Your task to perform on an android device: open the mobile data screen to see how much data has been used Image 0: 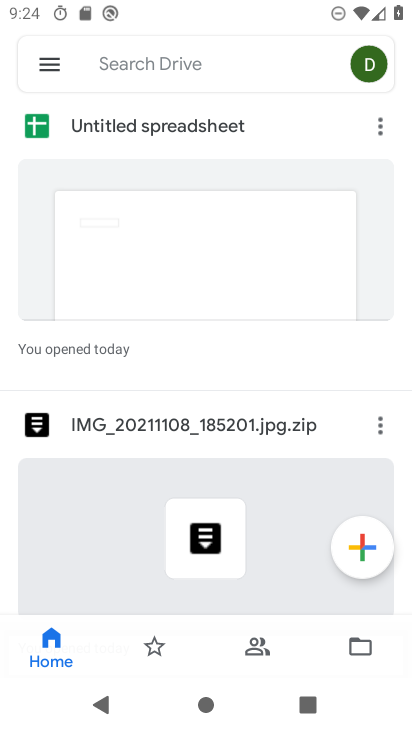
Step 0: press home button
Your task to perform on an android device: open the mobile data screen to see how much data has been used Image 1: 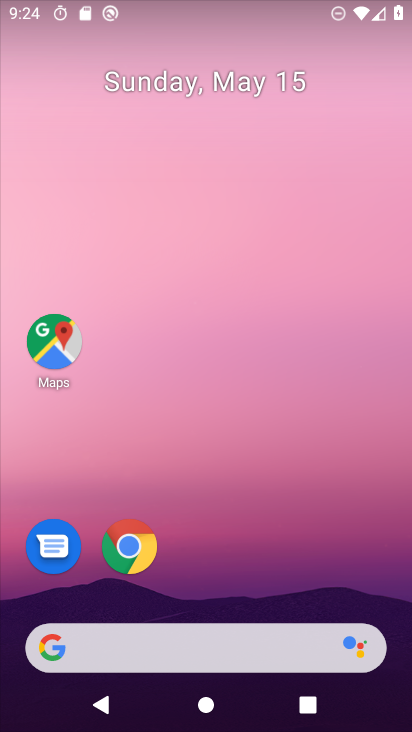
Step 1: drag from (271, 488) to (282, 48)
Your task to perform on an android device: open the mobile data screen to see how much data has been used Image 2: 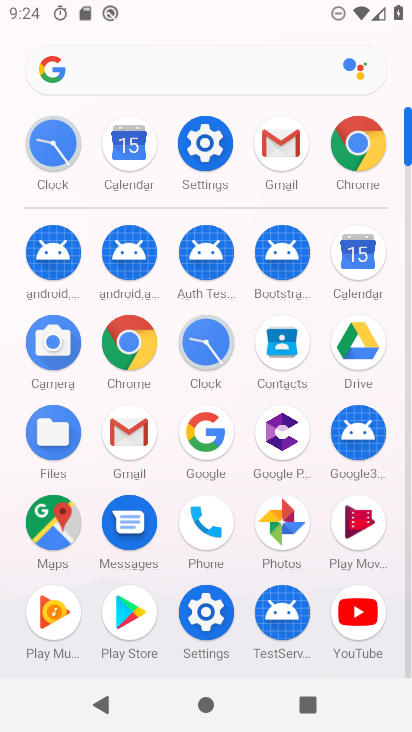
Step 2: click (200, 141)
Your task to perform on an android device: open the mobile data screen to see how much data has been used Image 3: 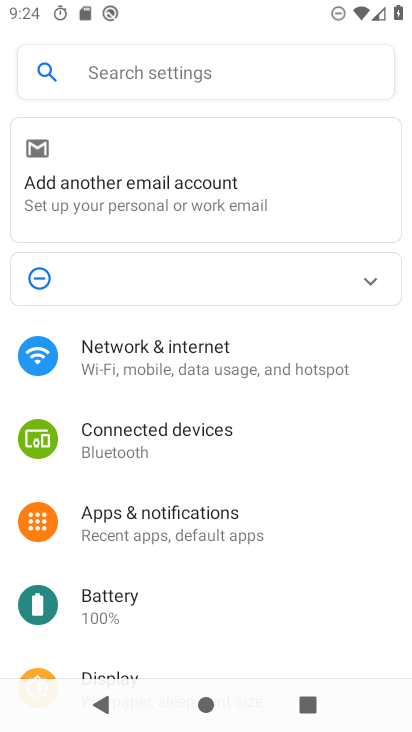
Step 3: click (194, 357)
Your task to perform on an android device: open the mobile data screen to see how much data has been used Image 4: 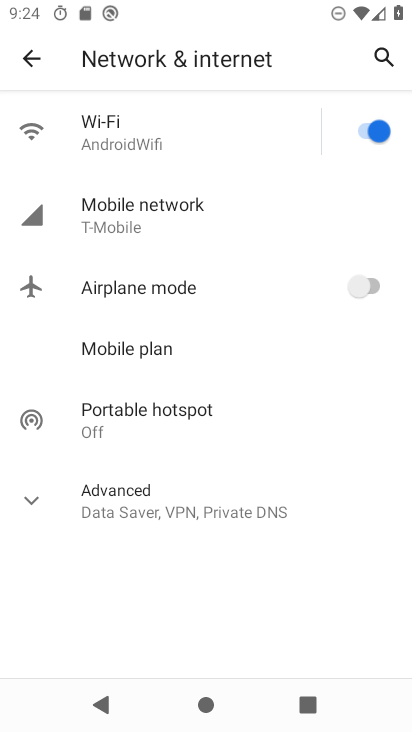
Step 4: click (215, 220)
Your task to perform on an android device: open the mobile data screen to see how much data has been used Image 5: 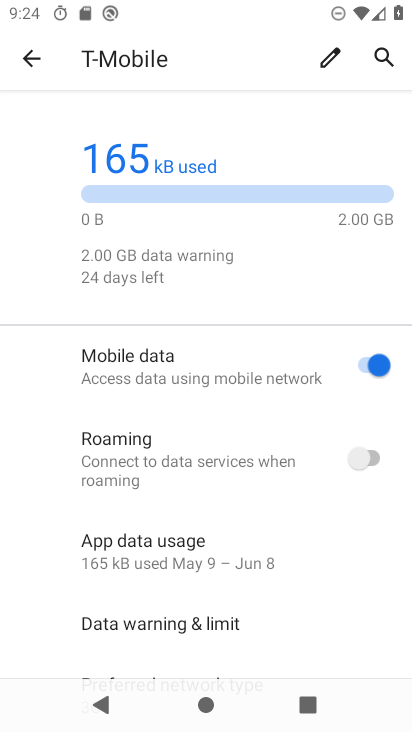
Step 5: task complete